Your task to perform on an android device: turn off improve location accuracy Image 0: 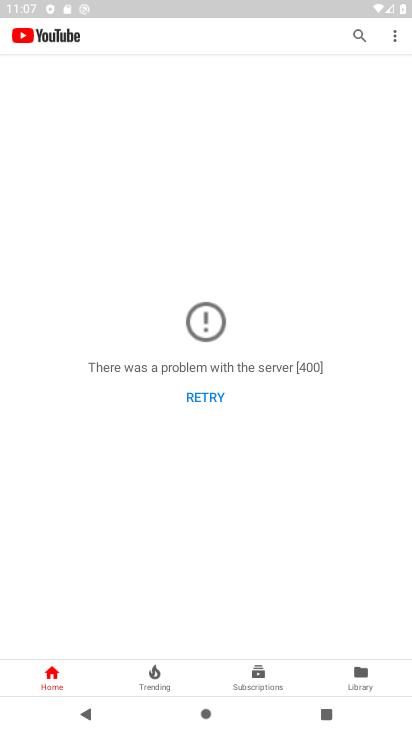
Step 0: press home button
Your task to perform on an android device: turn off improve location accuracy Image 1: 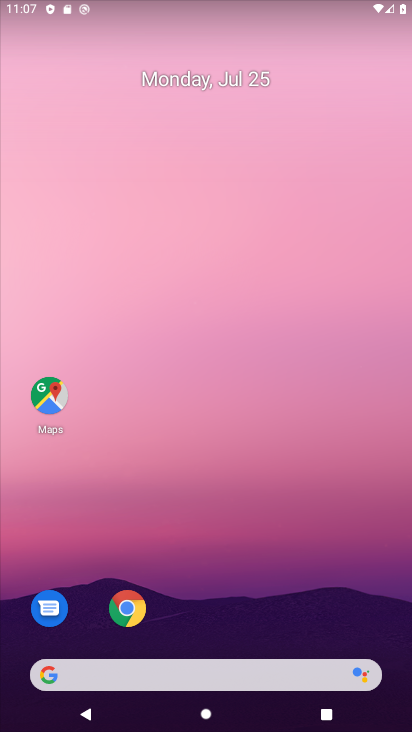
Step 1: drag from (200, 678) to (45, 1)
Your task to perform on an android device: turn off improve location accuracy Image 2: 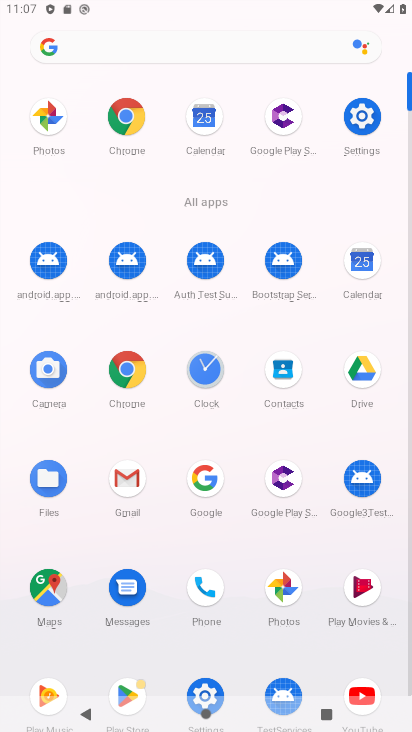
Step 2: click (358, 119)
Your task to perform on an android device: turn off improve location accuracy Image 3: 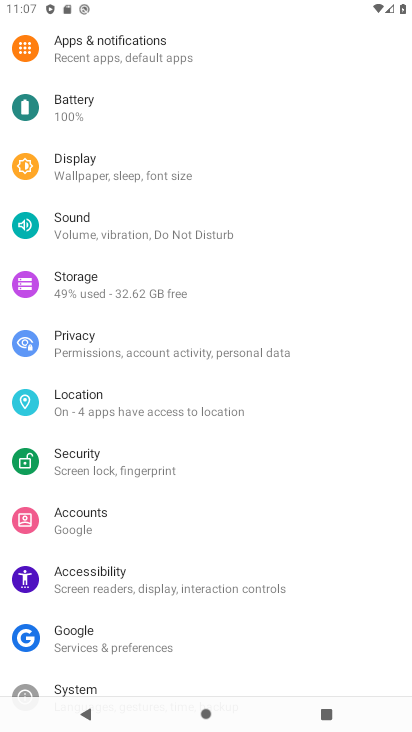
Step 3: click (78, 395)
Your task to perform on an android device: turn off improve location accuracy Image 4: 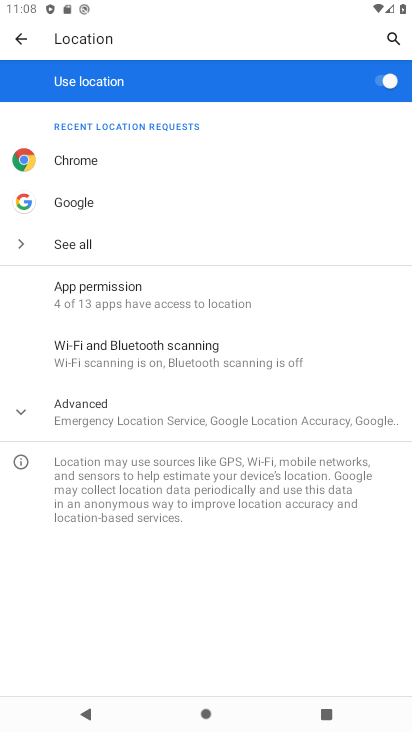
Step 4: click (90, 398)
Your task to perform on an android device: turn off improve location accuracy Image 5: 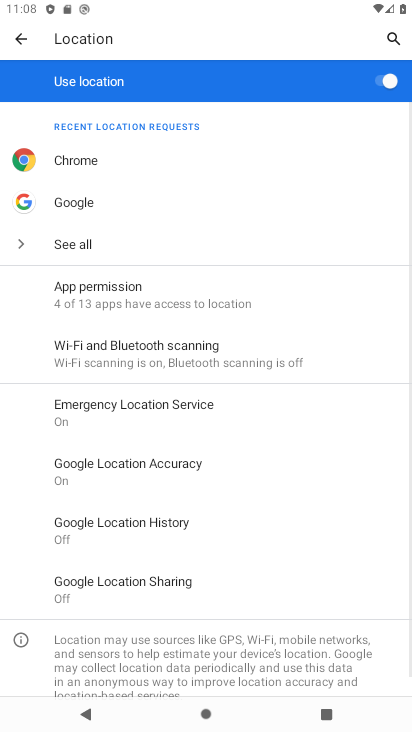
Step 5: click (163, 464)
Your task to perform on an android device: turn off improve location accuracy Image 6: 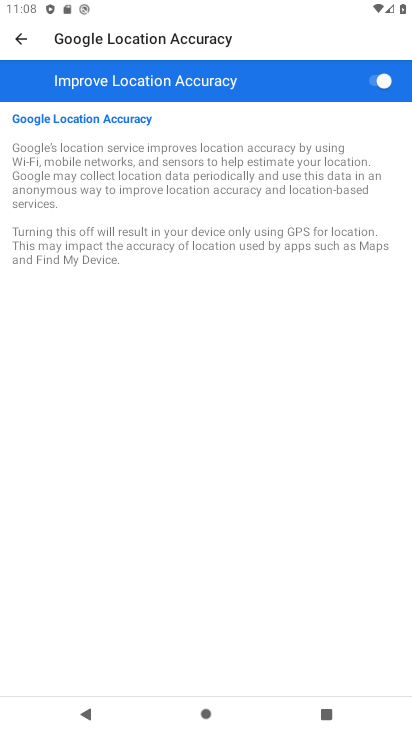
Step 6: click (373, 79)
Your task to perform on an android device: turn off improve location accuracy Image 7: 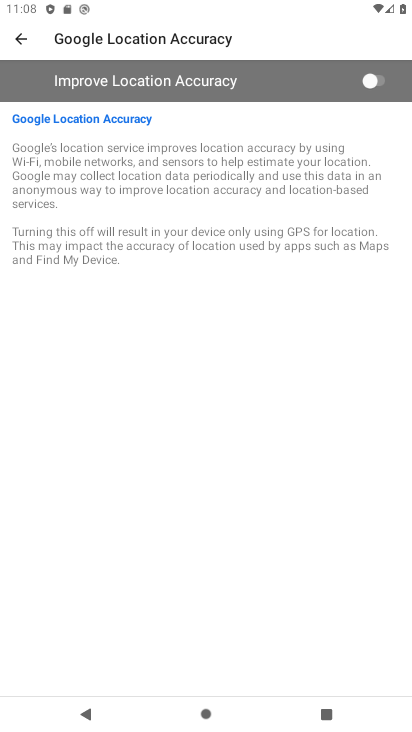
Step 7: task complete